Your task to perform on an android device: Open settings on Google Maps Image 0: 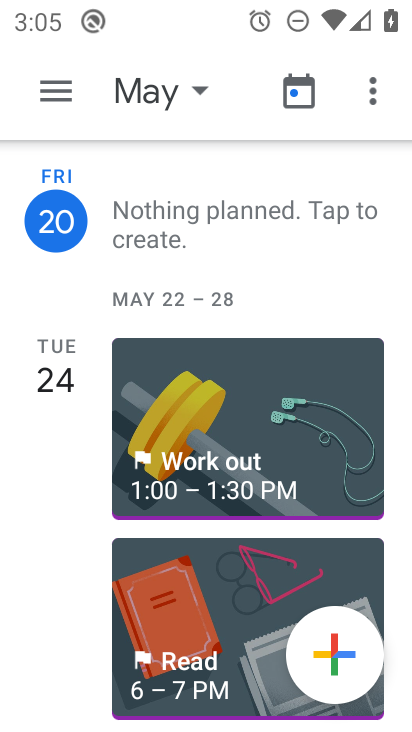
Step 0: press home button
Your task to perform on an android device: Open settings on Google Maps Image 1: 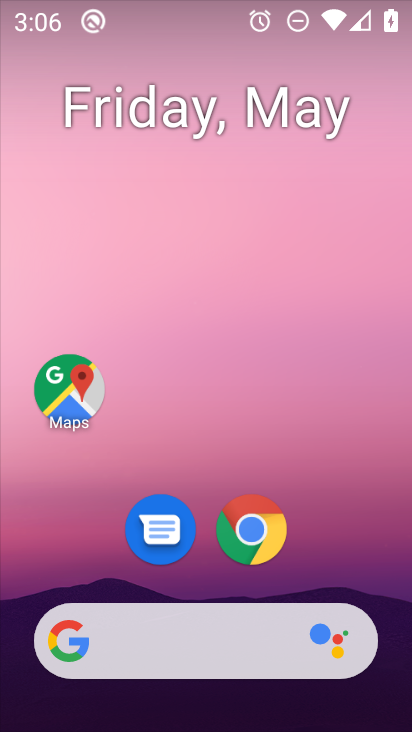
Step 1: click (67, 401)
Your task to perform on an android device: Open settings on Google Maps Image 2: 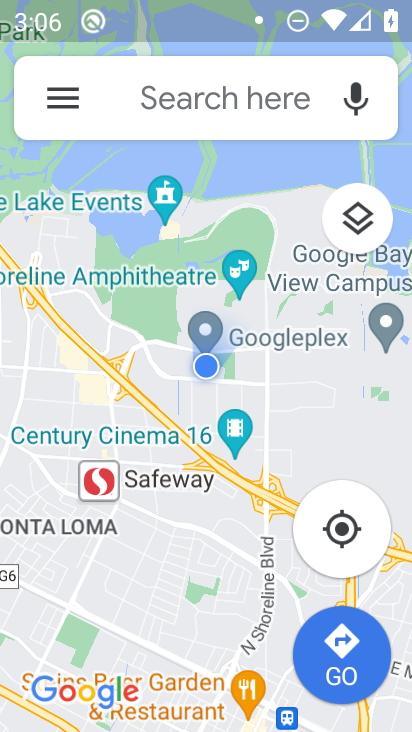
Step 2: task complete